Your task to perform on an android device: check the backup settings in the google photos Image 0: 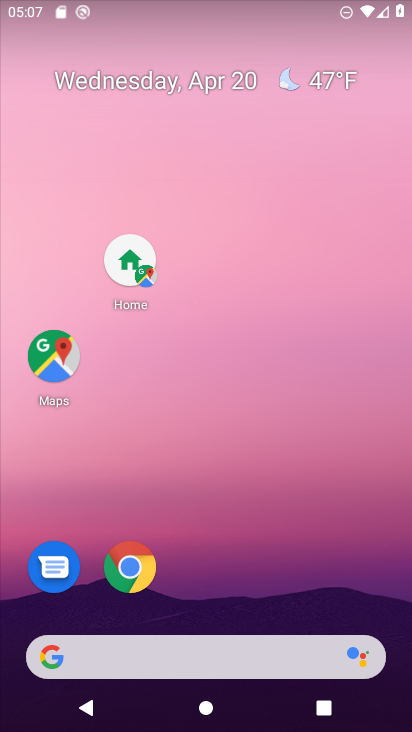
Step 0: drag from (225, 605) to (224, 128)
Your task to perform on an android device: check the backup settings in the google photos Image 1: 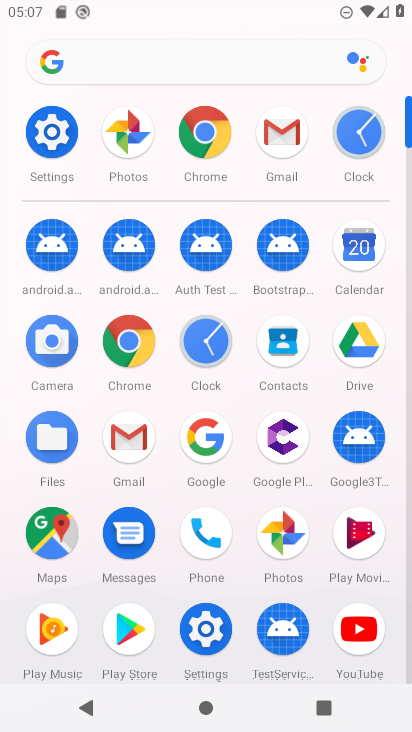
Step 1: click (275, 525)
Your task to perform on an android device: check the backup settings in the google photos Image 2: 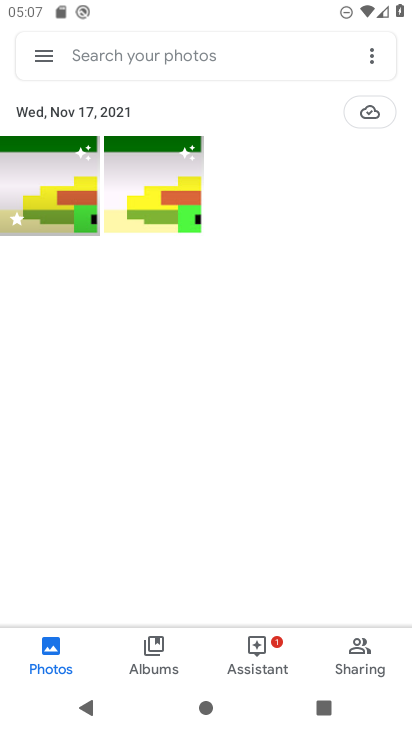
Step 2: click (53, 57)
Your task to perform on an android device: check the backup settings in the google photos Image 3: 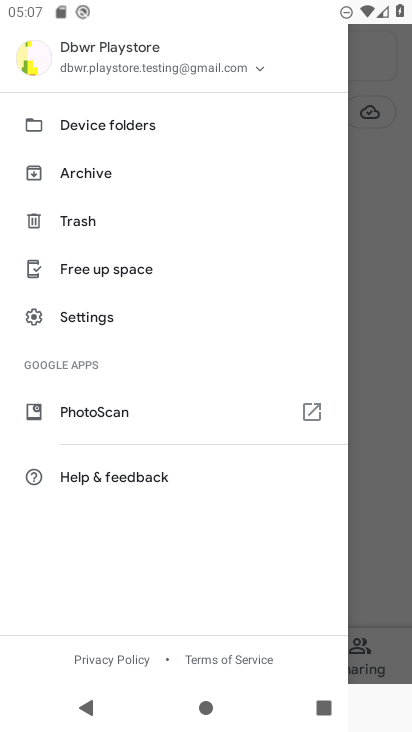
Step 3: click (62, 324)
Your task to perform on an android device: check the backup settings in the google photos Image 4: 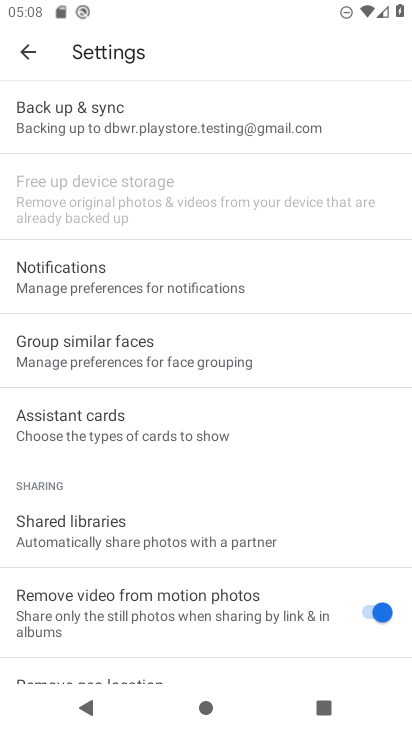
Step 4: click (235, 112)
Your task to perform on an android device: check the backup settings in the google photos Image 5: 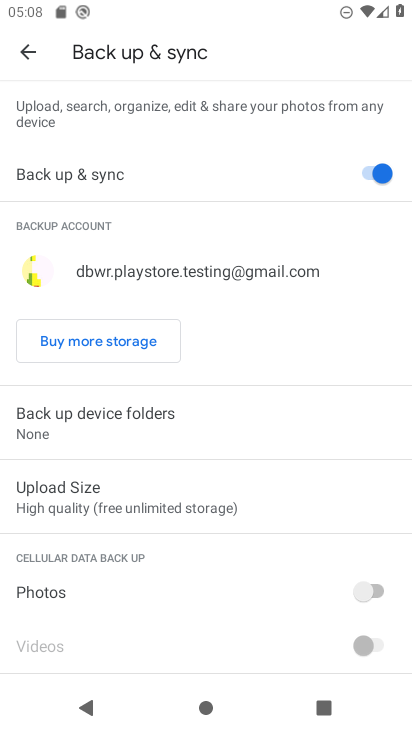
Step 5: task complete